Your task to perform on an android device: set an alarm Image 0: 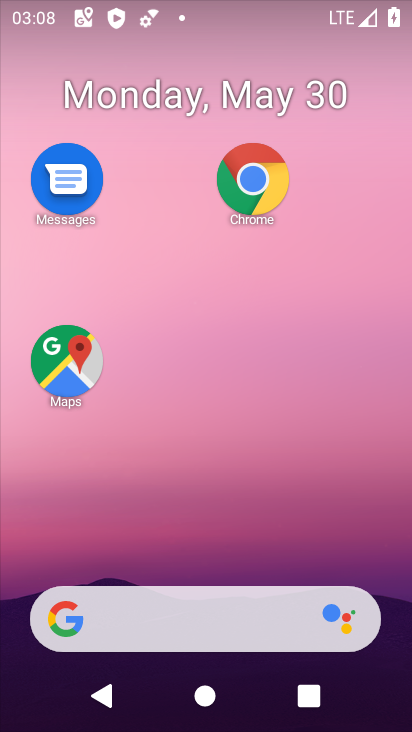
Step 0: drag from (209, 578) to (150, 58)
Your task to perform on an android device: set an alarm Image 1: 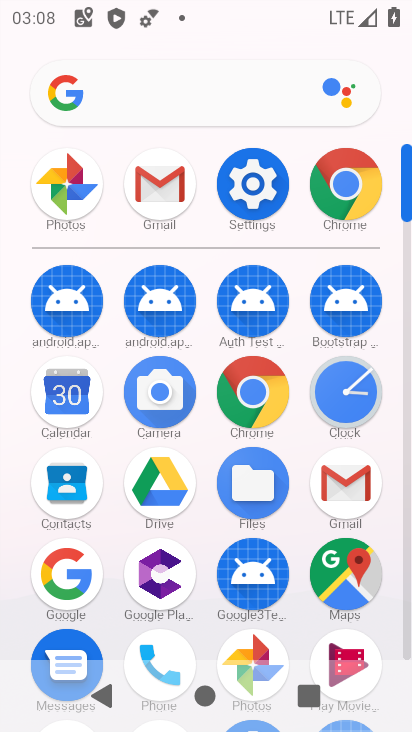
Step 1: click (229, 152)
Your task to perform on an android device: set an alarm Image 2: 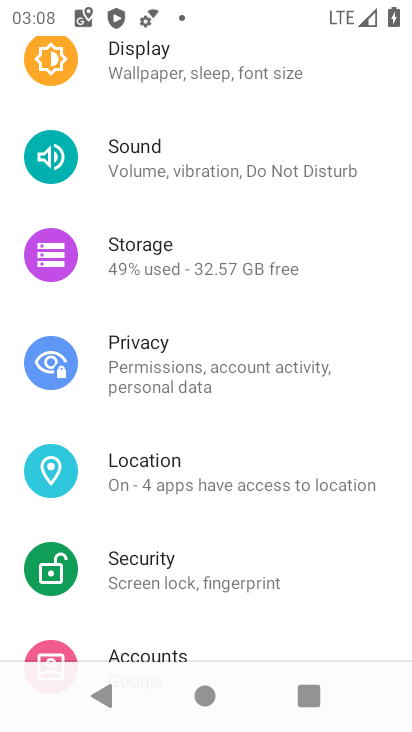
Step 2: drag from (214, 526) to (194, 120)
Your task to perform on an android device: set an alarm Image 3: 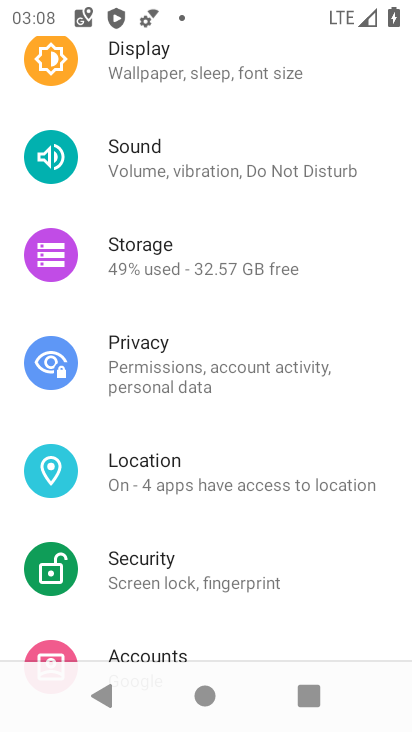
Step 3: drag from (199, 207) to (199, 718)
Your task to perform on an android device: set an alarm Image 4: 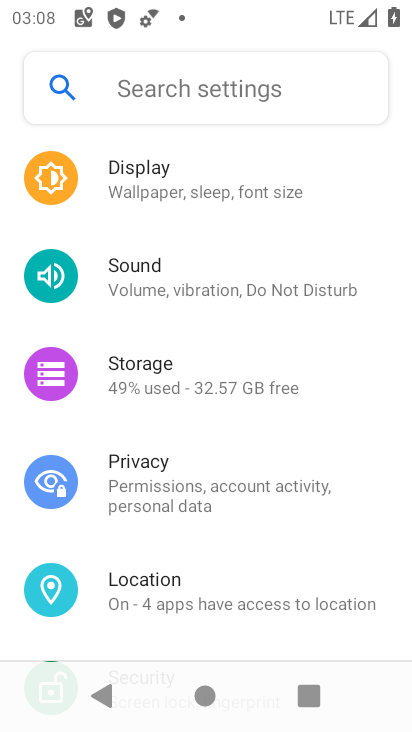
Step 4: press back button
Your task to perform on an android device: set an alarm Image 5: 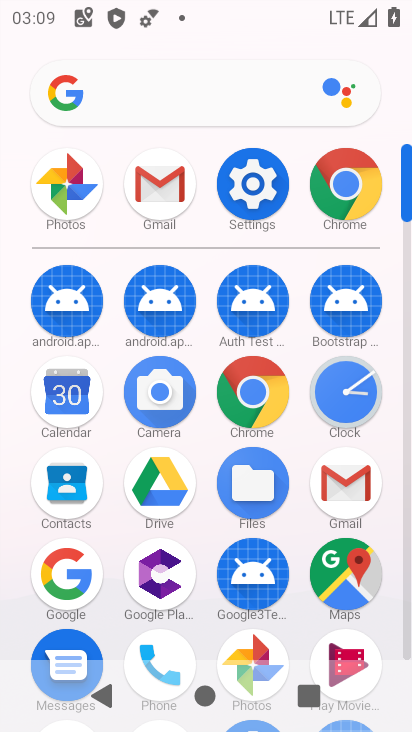
Step 5: click (341, 381)
Your task to perform on an android device: set an alarm Image 6: 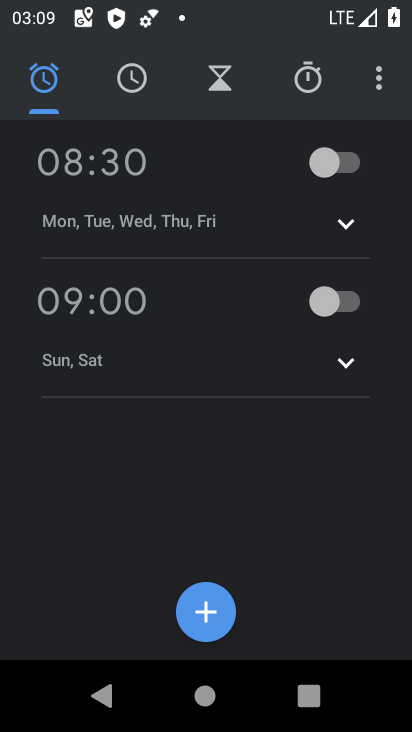
Step 6: click (379, 80)
Your task to perform on an android device: set an alarm Image 7: 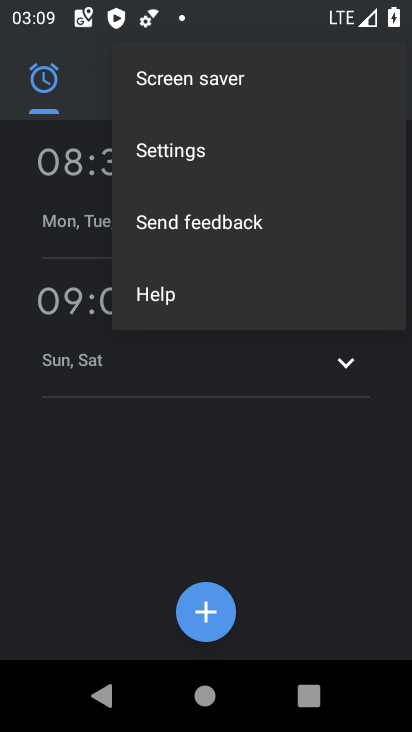
Step 7: click (49, 67)
Your task to perform on an android device: set an alarm Image 8: 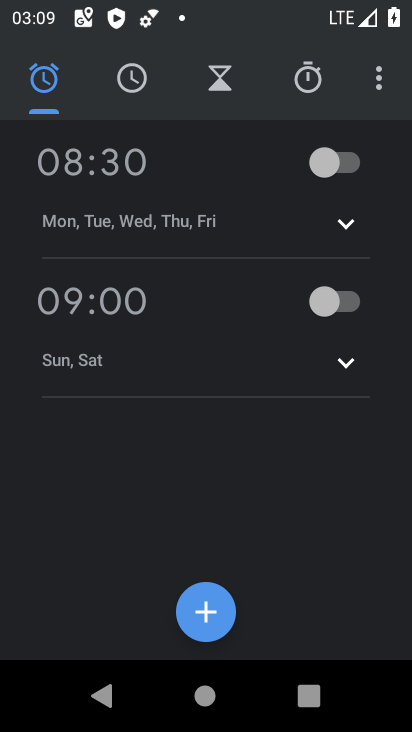
Step 8: click (353, 166)
Your task to perform on an android device: set an alarm Image 9: 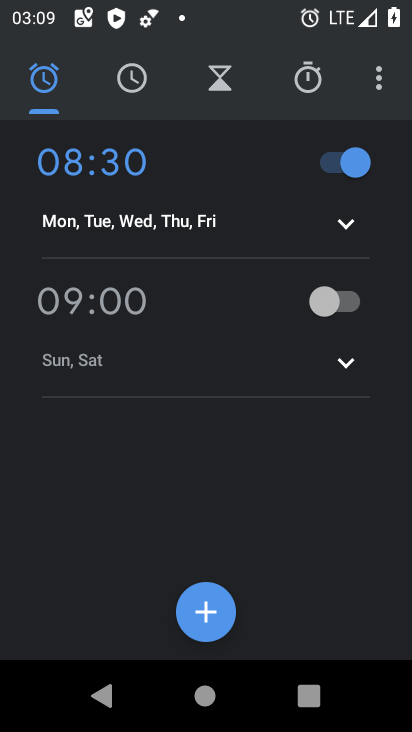
Step 9: task complete